Your task to perform on an android device: delete location history Image 0: 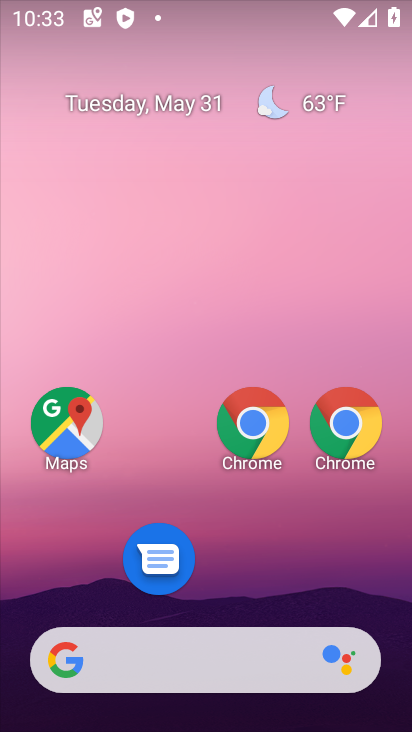
Step 0: drag from (246, 700) to (216, 133)
Your task to perform on an android device: delete location history Image 1: 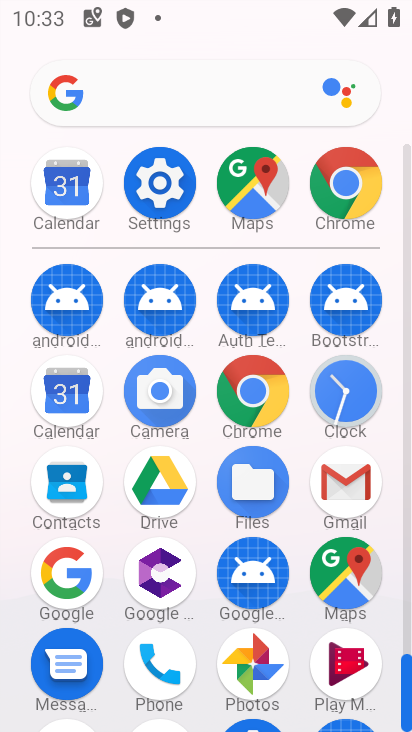
Step 1: click (151, 178)
Your task to perform on an android device: delete location history Image 2: 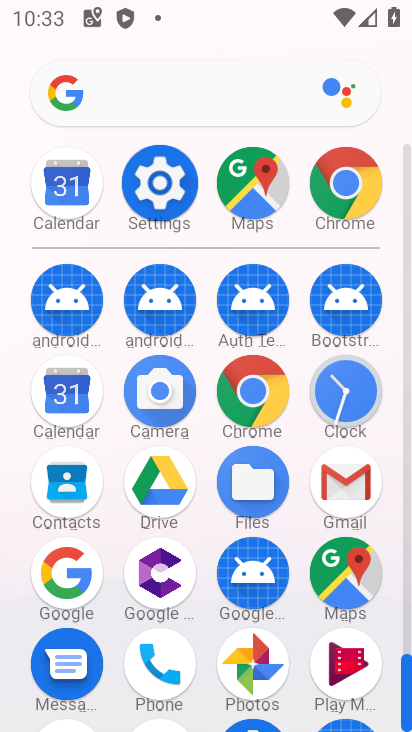
Step 2: click (154, 181)
Your task to perform on an android device: delete location history Image 3: 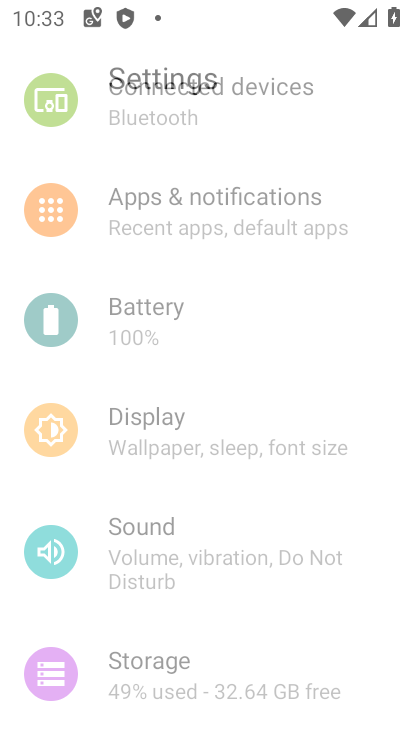
Step 3: click (154, 185)
Your task to perform on an android device: delete location history Image 4: 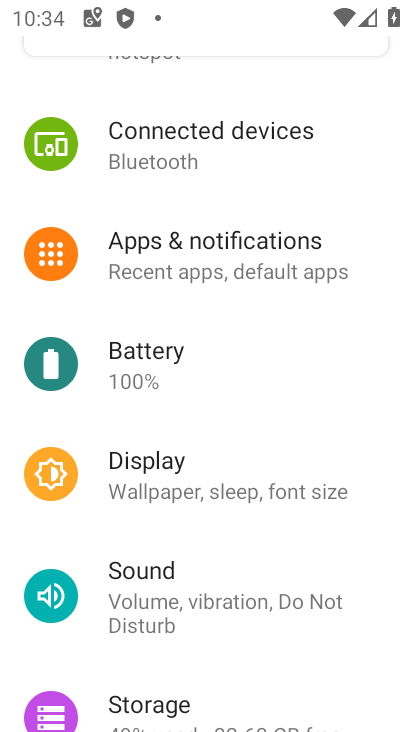
Step 4: drag from (155, 583) to (143, 261)
Your task to perform on an android device: delete location history Image 5: 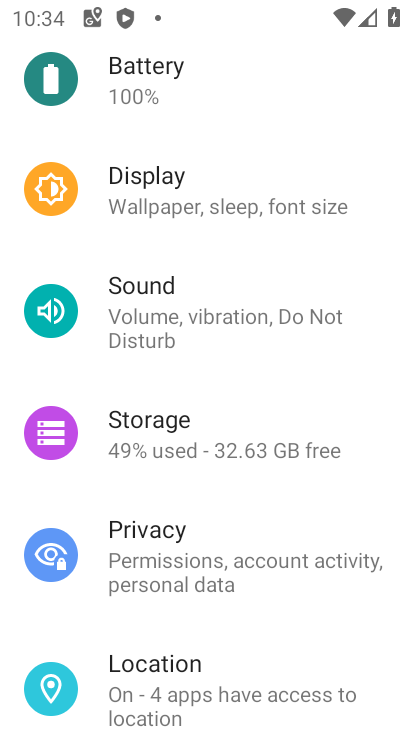
Step 5: drag from (173, 492) to (191, 138)
Your task to perform on an android device: delete location history Image 6: 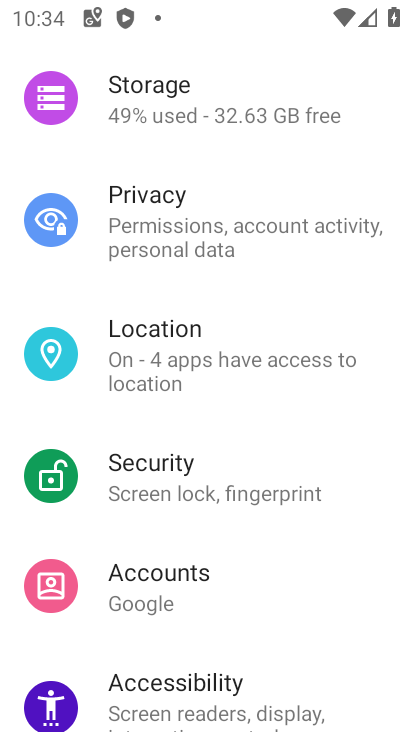
Step 6: drag from (189, 443) to (183, 138)
Your task to perform on an android device: delete location history Image 7: 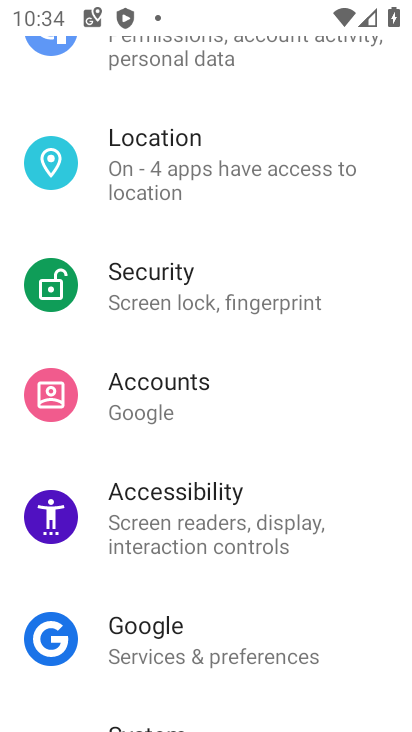
Step 7: click (160, 160)
Your task to perform on an android device: delete location history Image 8: 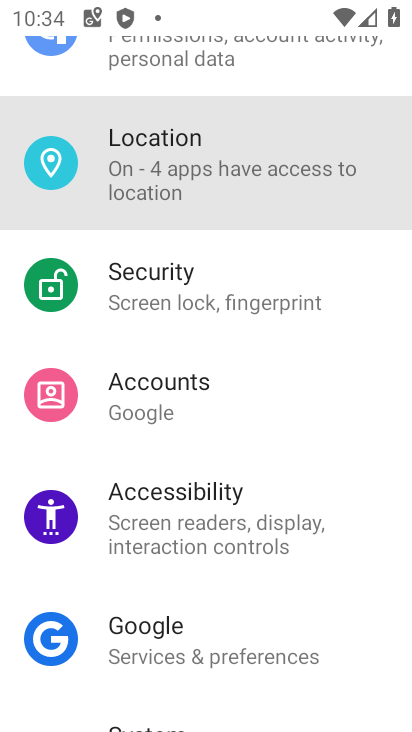
Step 8: click (160, 160)
Your task to perform on an android device: delete location history Image 9: 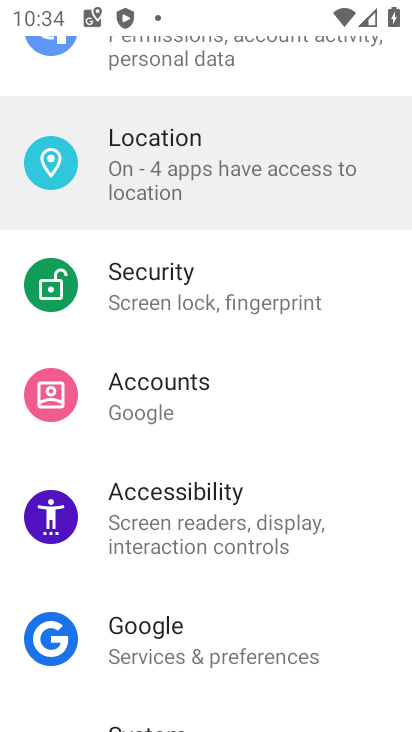
Step 9: click (160, 160)
Your task to perform on an android device: delete location history Image 10: 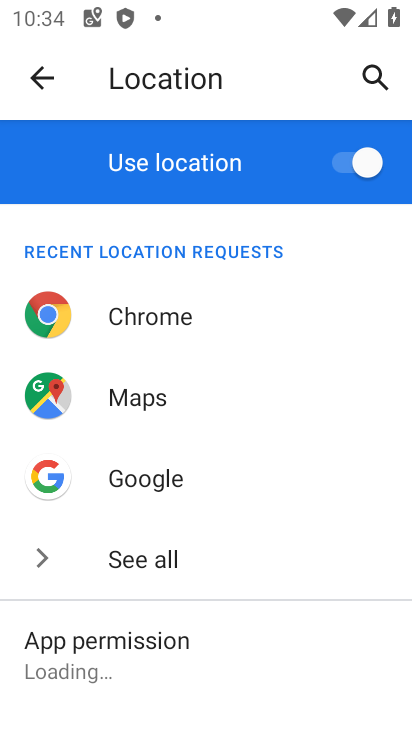
Step 10: drag from (229, 549) to (243, 185)
Your task to perform on an android device: delete location history Image 11: 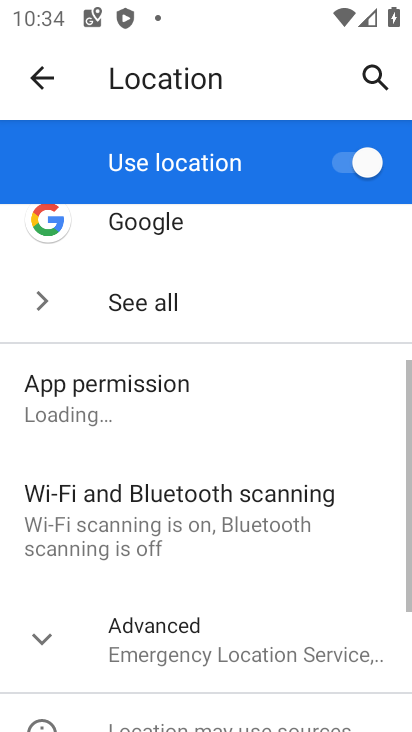
Step 11: drag from (277, 407) to (209, 257)
Your task to perform on an android device: delete location history Image 12: 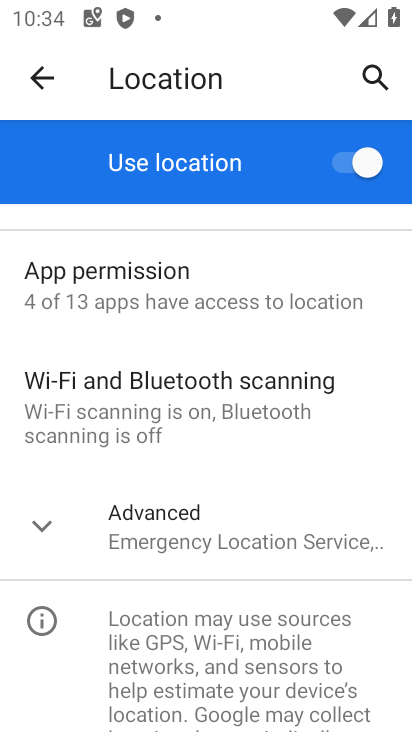
Step 12: click (164, 524)
Your task to perform on an android device: delete location history Image 13: 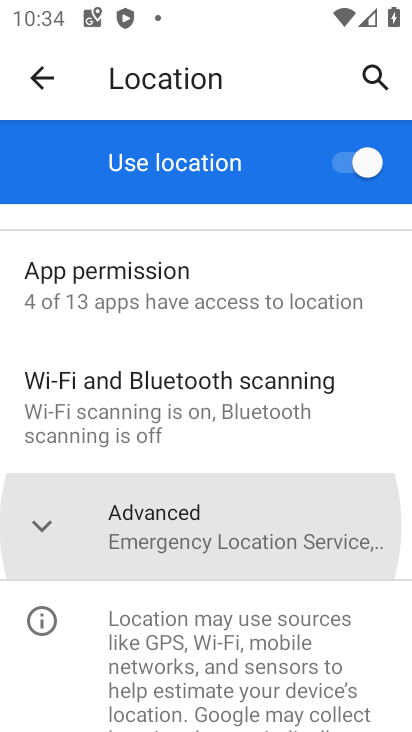
Step 13: click (168, 529)
Your task to perform on an android device: delete location history Image 14: 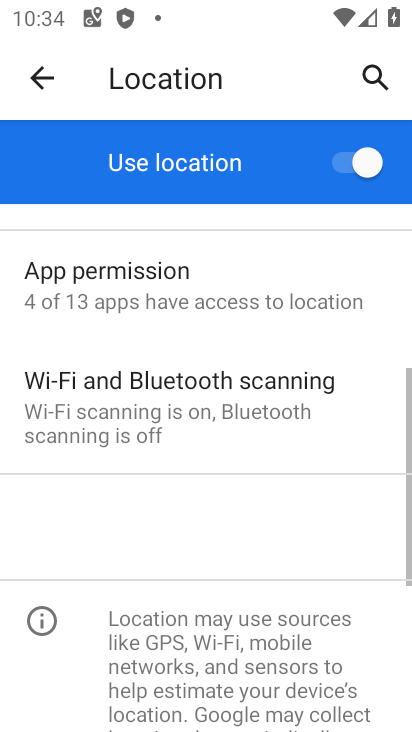
Step 14: click (169, 529)
Your task to perform on an android device: delete location history Image 15: 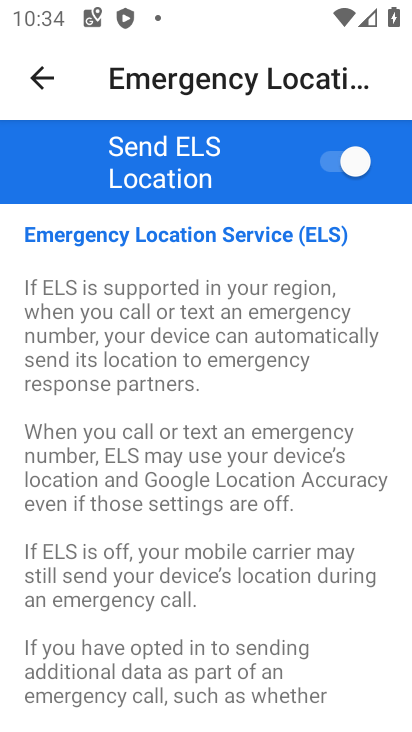
Step 15: click (41, 73)
Your task to perform on an android device: delete location history Image 16: 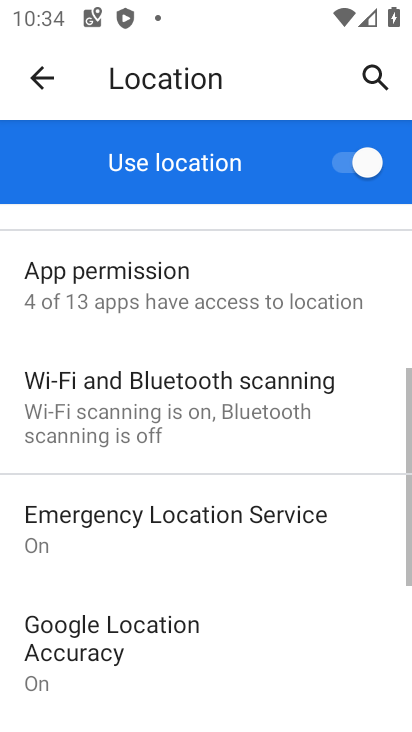
Step 16: drag from (166, 609) to (157, 351)
Your task to perform on an android device: delete location history Image 17: 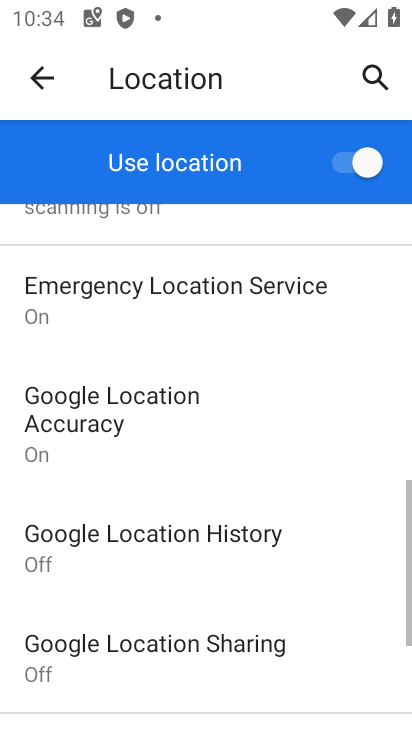
Step 17: drag from (192, 554) to (233, 242)
Your task to perform on an android device: delete location history Image 18: 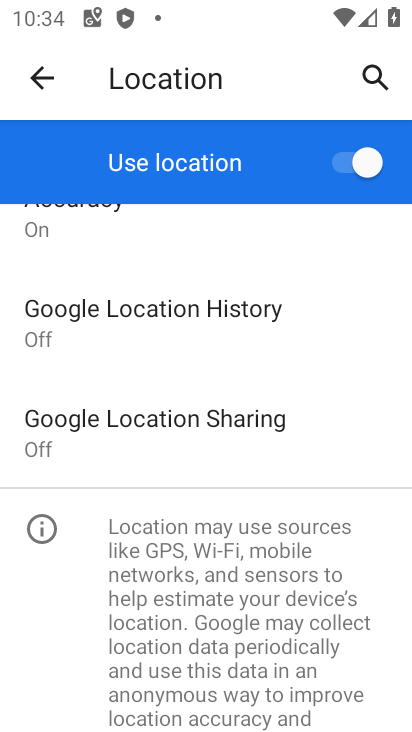
Step 18: click (167, 304)
Your task to perform on an android device: delete location history Image 19: 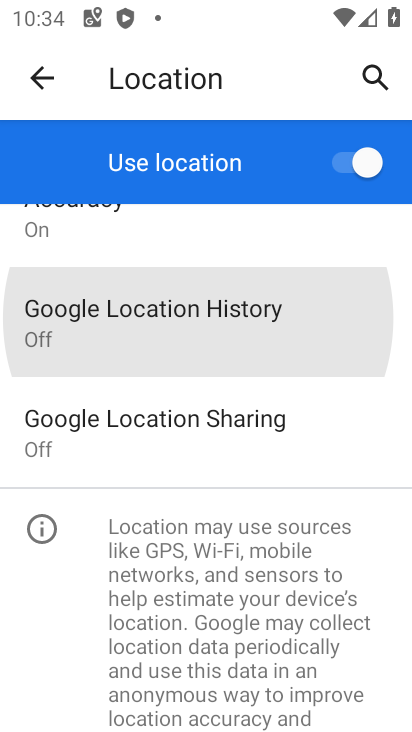
Step 19: click (166, 303)
Your task to perform on an android device: delete location history Image 20: 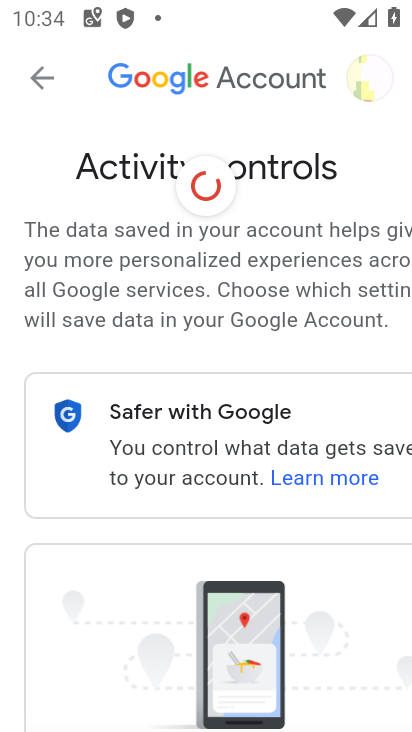
Step 20: task complete